Your task to perform on an android device: open a bookmark in the chrome app Image 0: 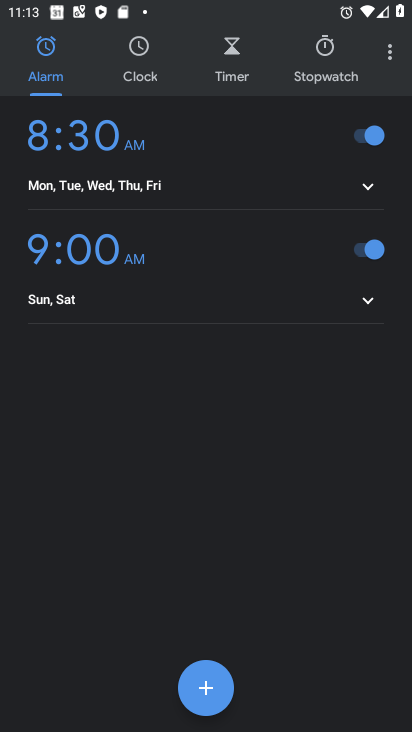
Step 0: press home button
Your task to perform on an android device: open a bookmark in the chrome app Image 1: 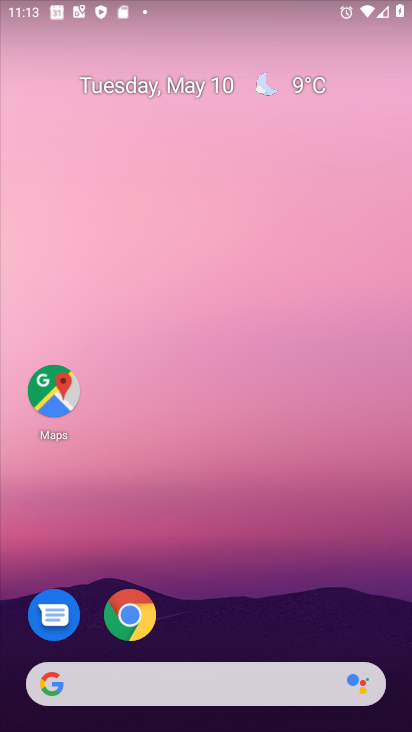
Step 1: click (129, 611)
Your task to perform on an android device: open a bookmark in the chrome app Image 2: 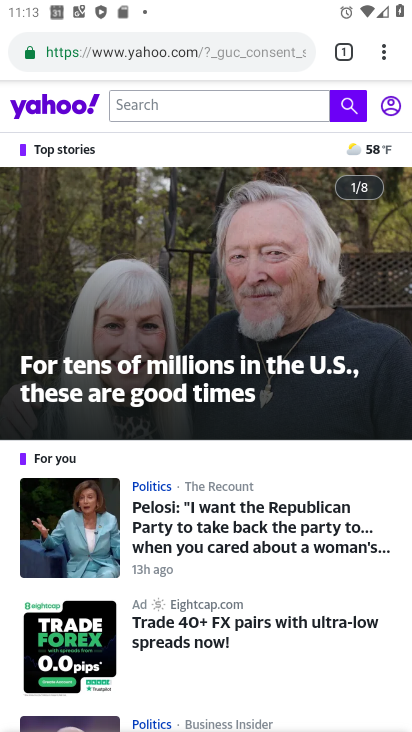
Step 2: click (385, 47)
Your task to perform on an android device: open a bookmark in the chrome app Image 3: 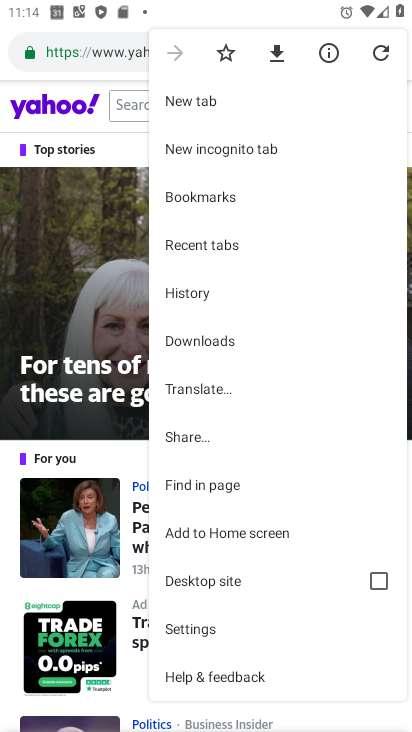
Step 3: click (231, 192)
Your task to perform on an android device: open a bookmark in the chrome app Image 4: 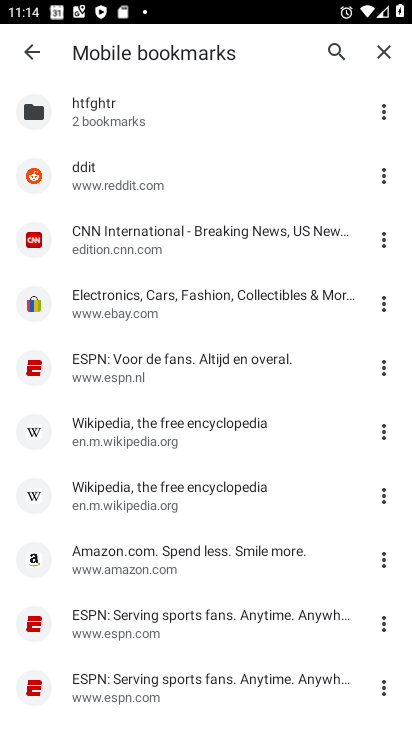
Step 4: click (138, 435)
Your task to perform on an android device: open a bookmark in the chrome app Image 5: 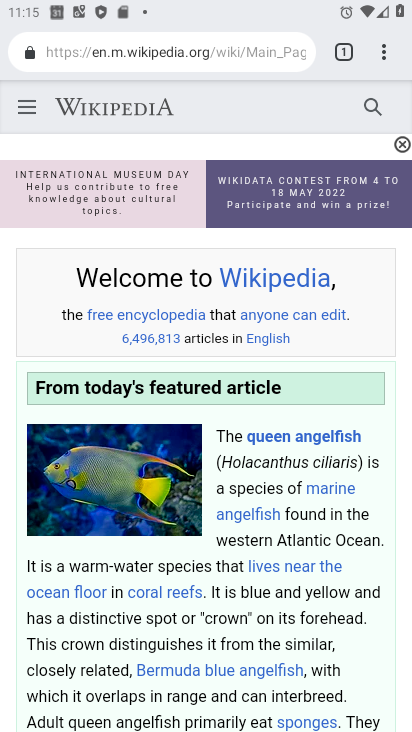
Step 5: task complete